Your task to perform on an android device: set the stopwatch Image 0: 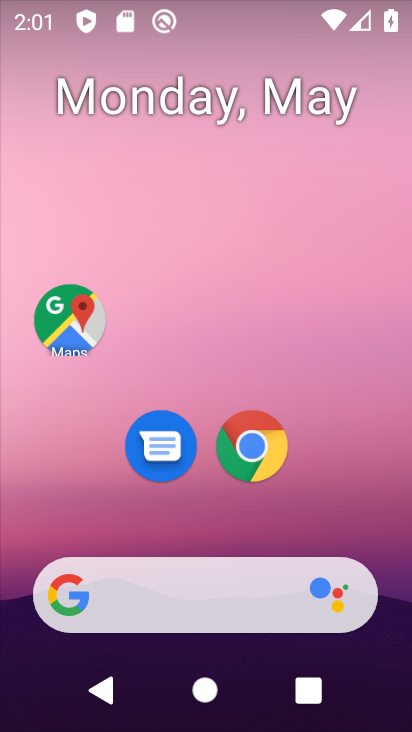
Step 0: drag from (269, 591) to (285, 52)
Your task to perform on an android device: set the stopwatch Image 1: 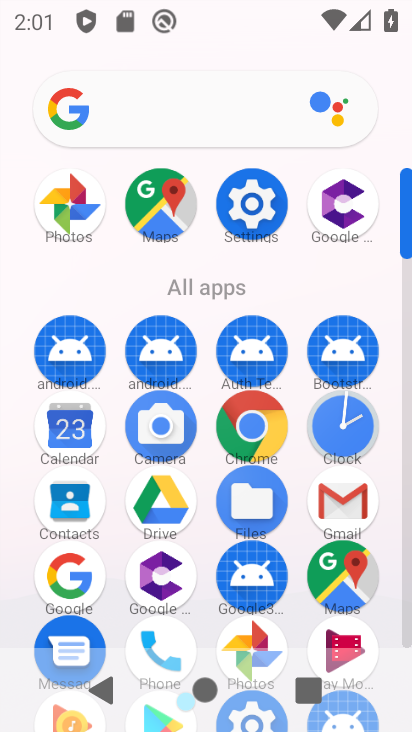
Step 1: click (341, 404)
Your task to perform on an android device: set the stopwatch Image 2: 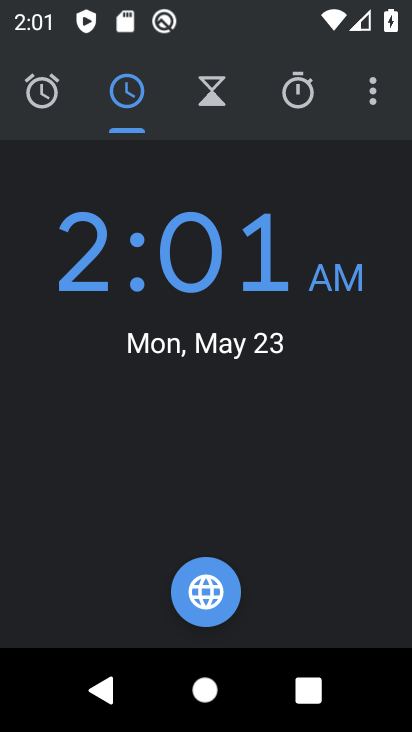
Step 2: click (296, 101)
Your task to perform on an android device: set the stopwatch Image 3: 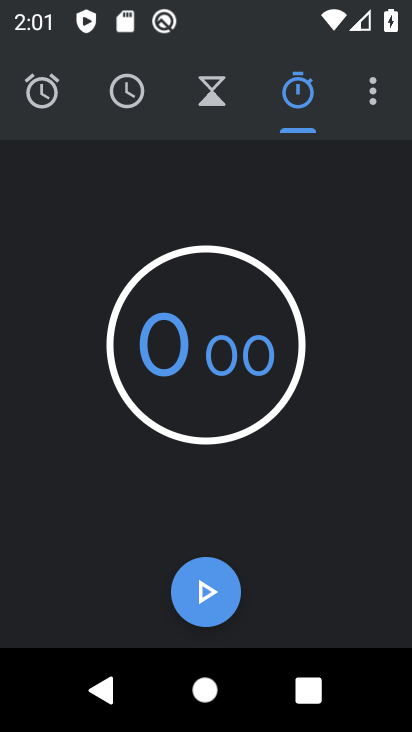
Step 3: click (209, 101)
Your task to perform on an android device: set the stopwatch Image 4: 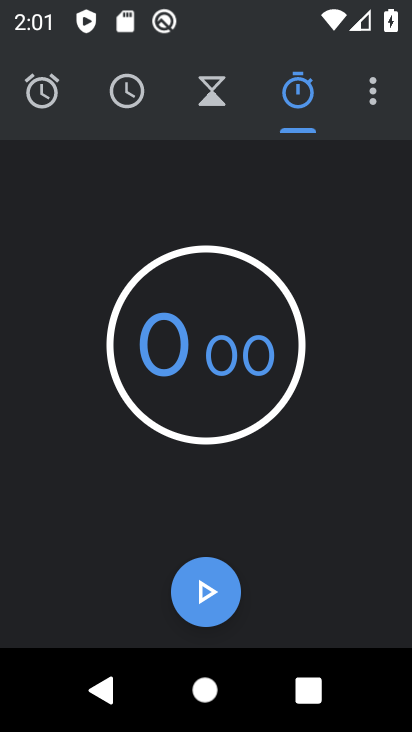
Step 4: click (205, 609)
Your task to perform on an android device: set the stopwatch Image 5: 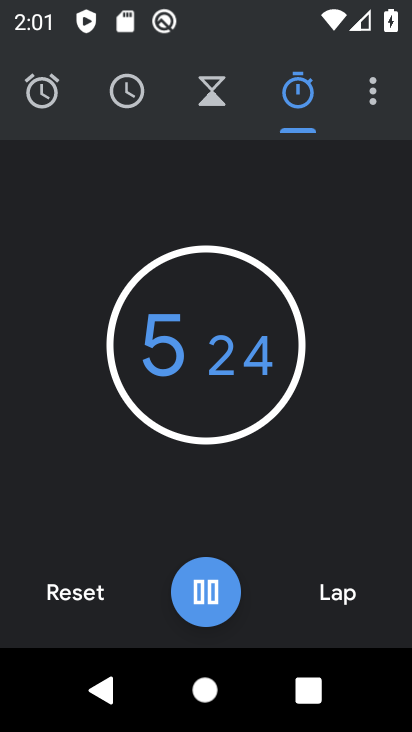
Step 5: click (205, 609)
Your task to perform on an android device: set the stopwatch Image 6: 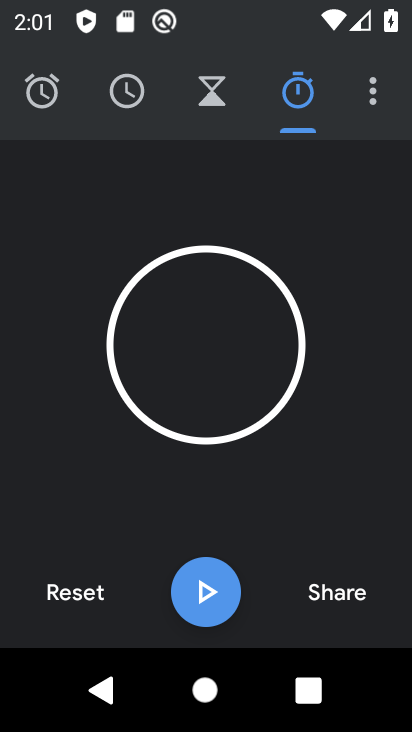
Step 6: task complete